Your task to perform on an android device: Go to network settings Image 0: 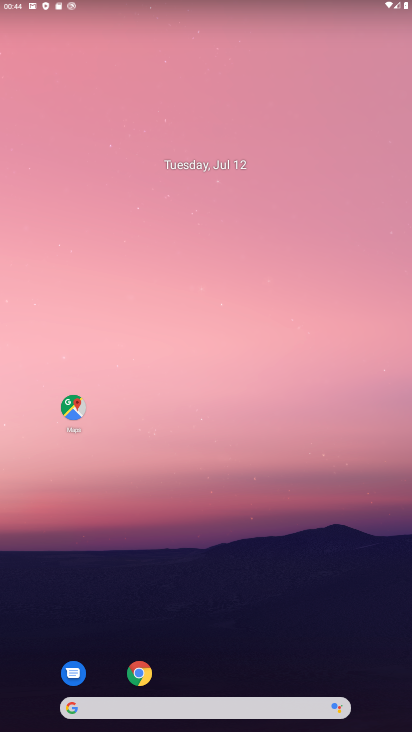
Step 0: press home button
Your task to perform on an android device: Go to network settings Image 1: 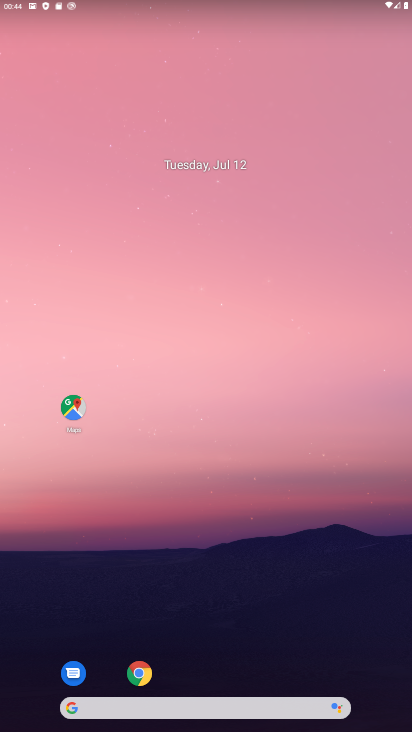
Step 1: drag from (291, 589) to (255, 106)
Your task to perform on an android device: Go to network settings Image 2: 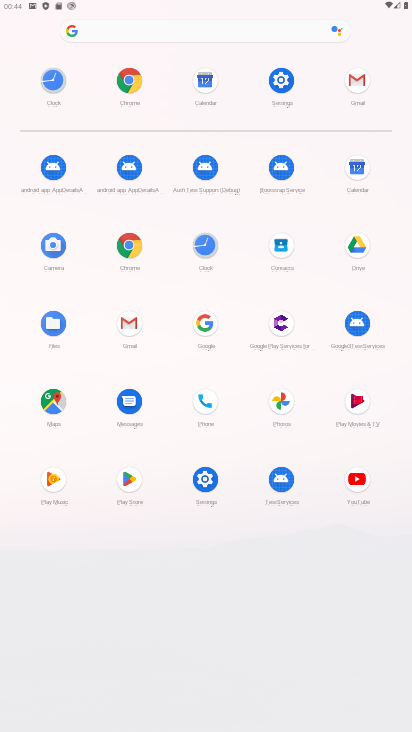
Step 2: click (284, 80)
Your task to perform on an android device: Go to network settings Image 3: 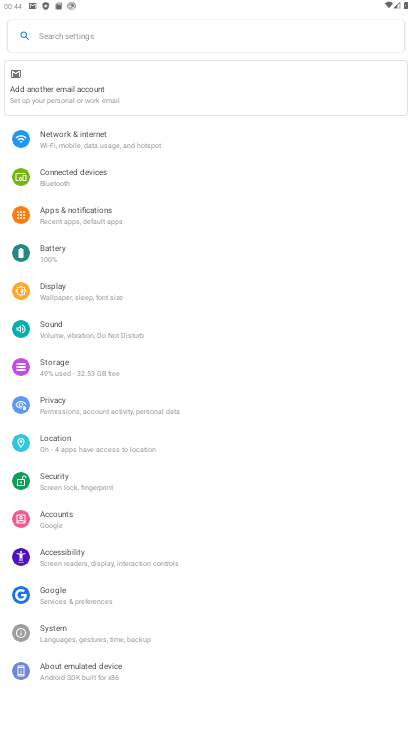
Step 3: click (78, 131)
Your task to perform on an android device: Go to network settings Image 4: 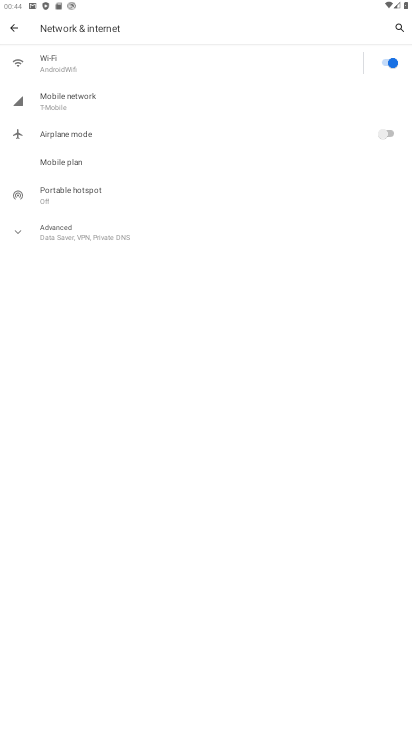
Step 4: task complete